Your task to perform on an android device: Open Android settings Image 0: 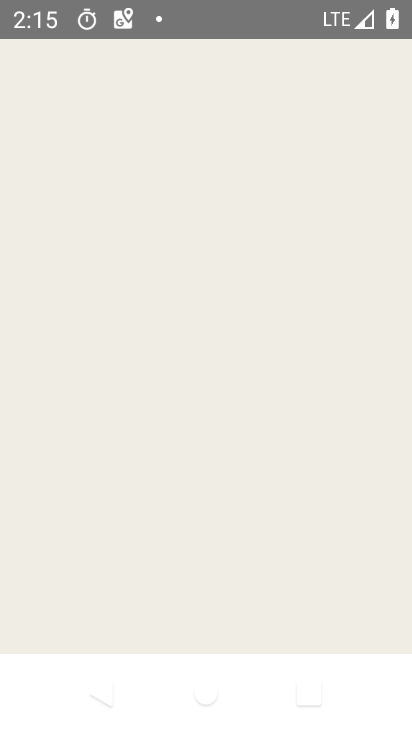
Step 0: click (391, 515)
Your task to perform on an android device: Open Android settings Image 1: 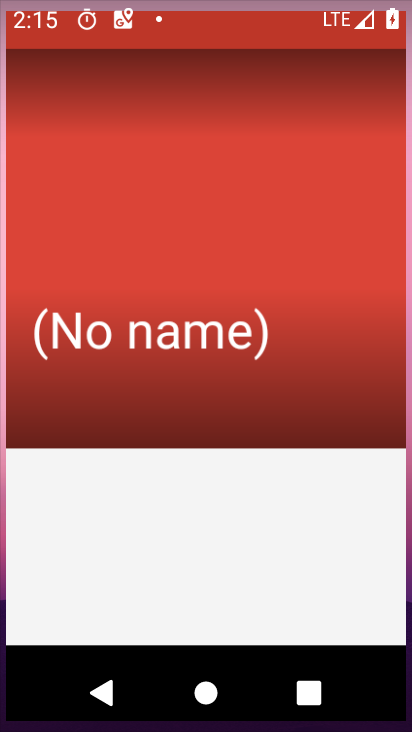
Step 1: drag from (188, 560) to (243, 228)
Your task to perform on an android device: Open Android settings Image 2: 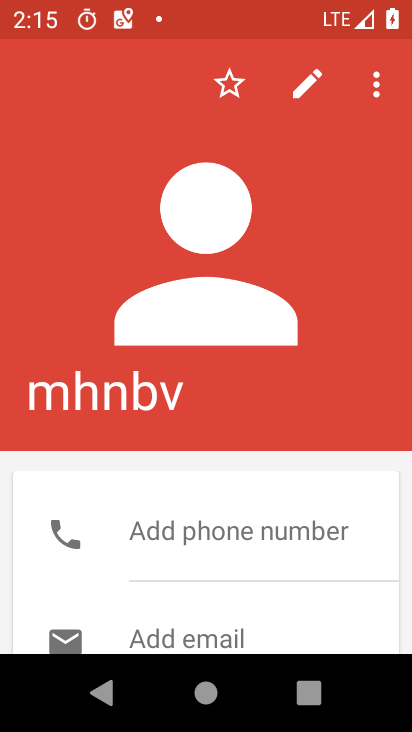
Step 2: press home button
Your task to perform on an android device: Open Android settings Image 3: 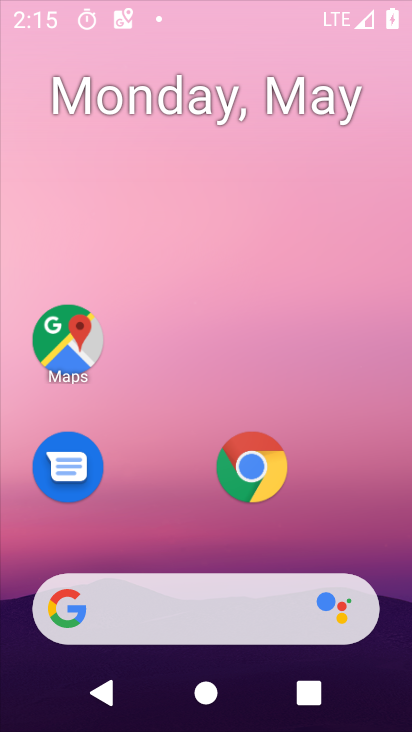
Step 3: drag from (257, 434) to (301, 0)
Your task to perform on an android device: Open Android settings Image 4: 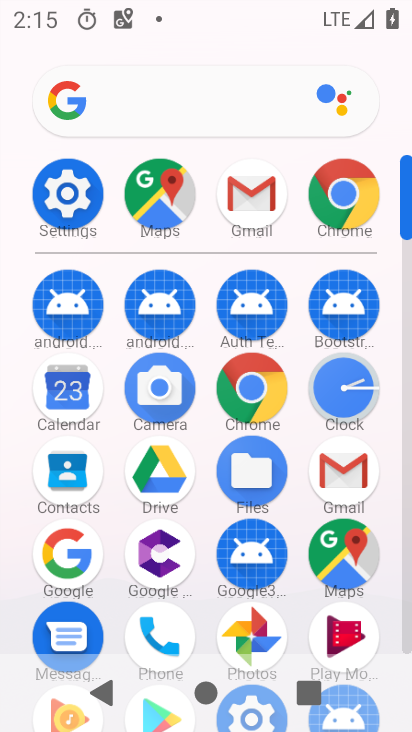
Step 4: click (64, 189)
Your task to perform on an android device: Open Android settings Image 5: 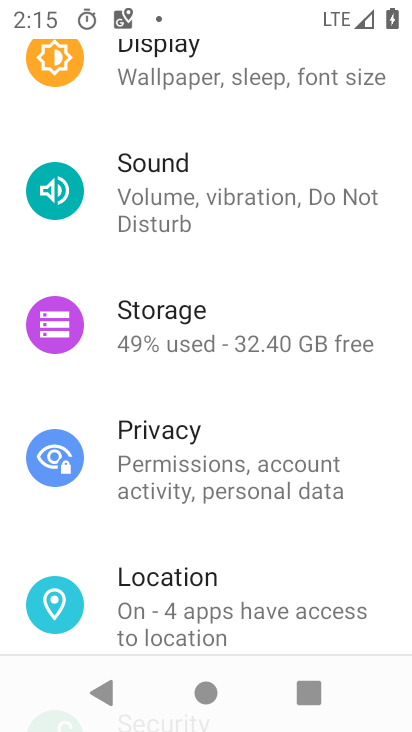
Step 5: drag from (216, 533) to (276, 22)
Your task to perform on an android device: Open Android settings Image 6: 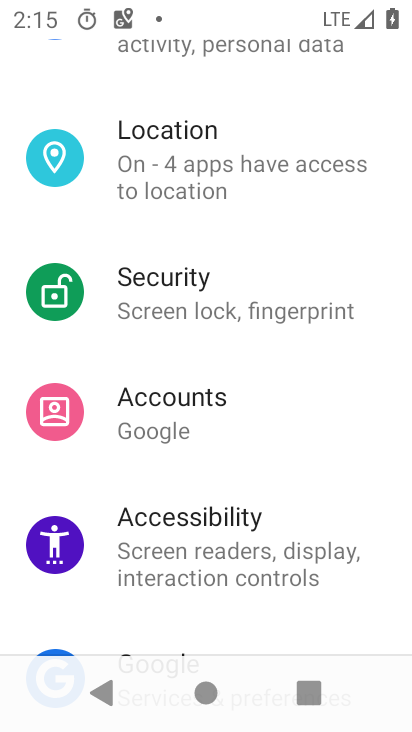
Step 6: drag from (210, 541) to (222, 28)
Your task to perform on an android device: Open Android settings Image 7: 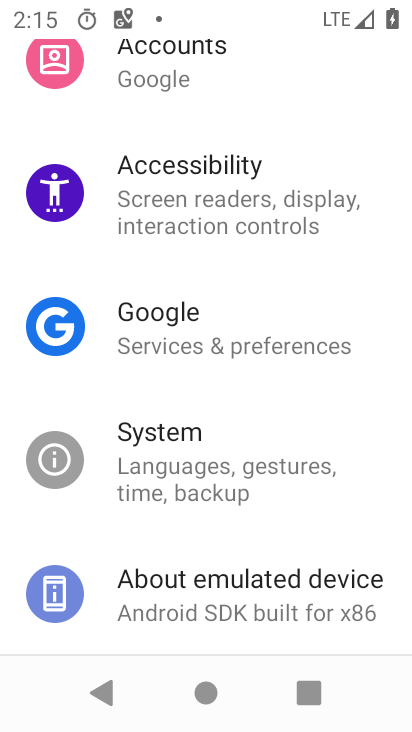
Step 7: click (207, 614)
Your task to perform on an android device: Open Android settings Image 8: 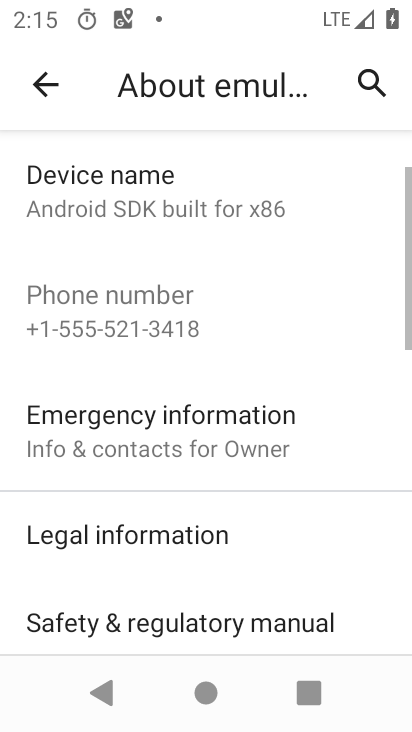
Step 8: drag from (237, 494) to (294, 199)
Your task to perform on an android device: Open Android settings Image 9: 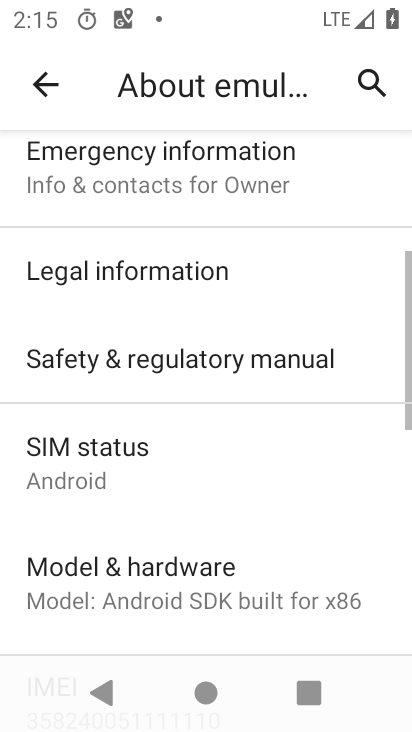
Step 9: drag from (163, 554) to (262, 141)
Your task to perform on an android device: Open Android settings Image 10: 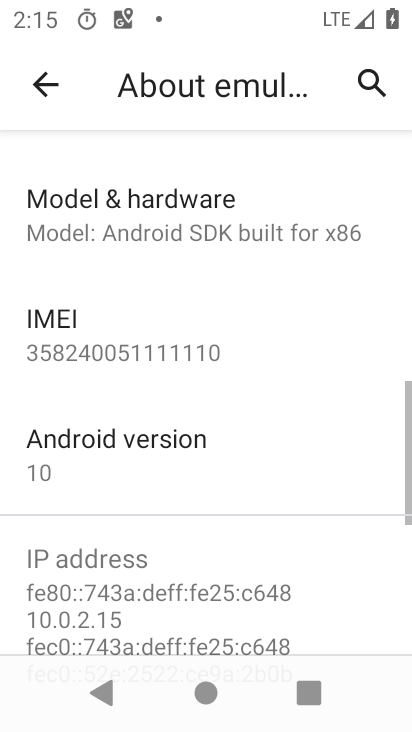
Step 10: click (177, 445)
Your task to perform on an android device: Open Android settings Image 11: 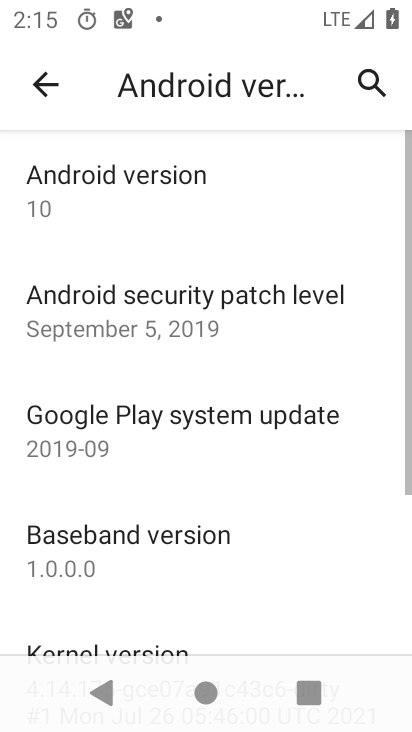
Step 11: task complete